Your task to perform on an android device: Search for a small bookcase on Ikea.com Image 0: 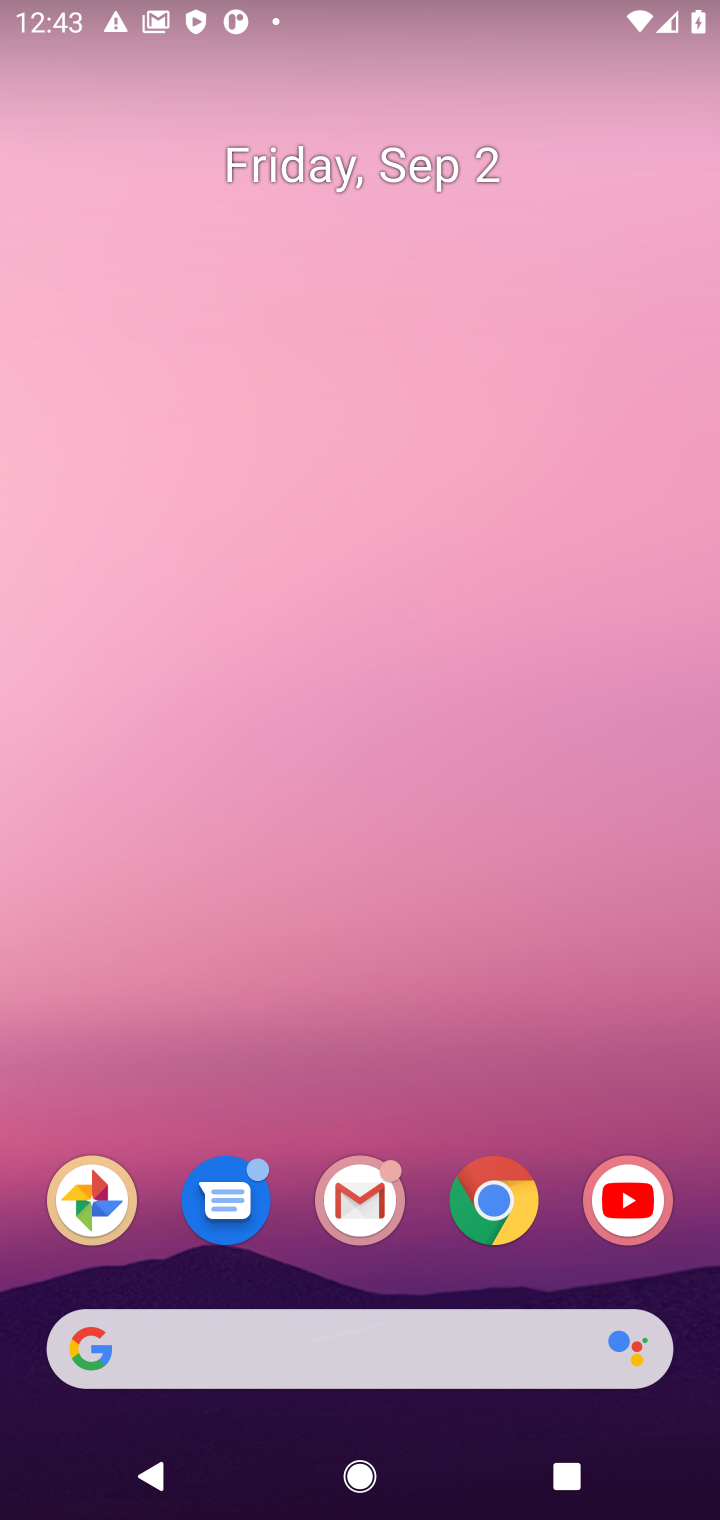
Step 0: click (463, 1194)
Your task to perform on an android device: Search for a small bookcase on Ikea.com Image 1: 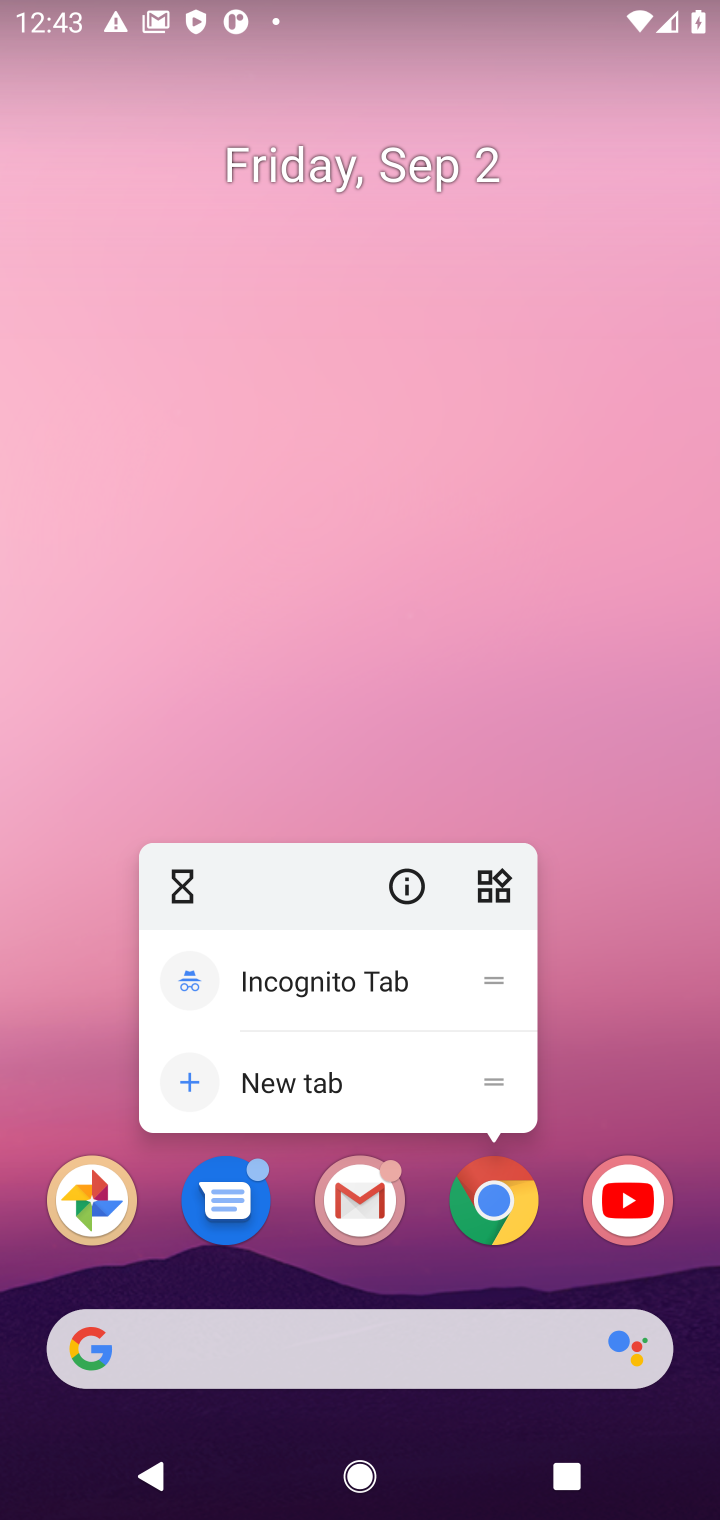
Step 1: click (506, 1191)
Your task to perform on an android device: Search for a small bookcase on Ikea.com Image 2: 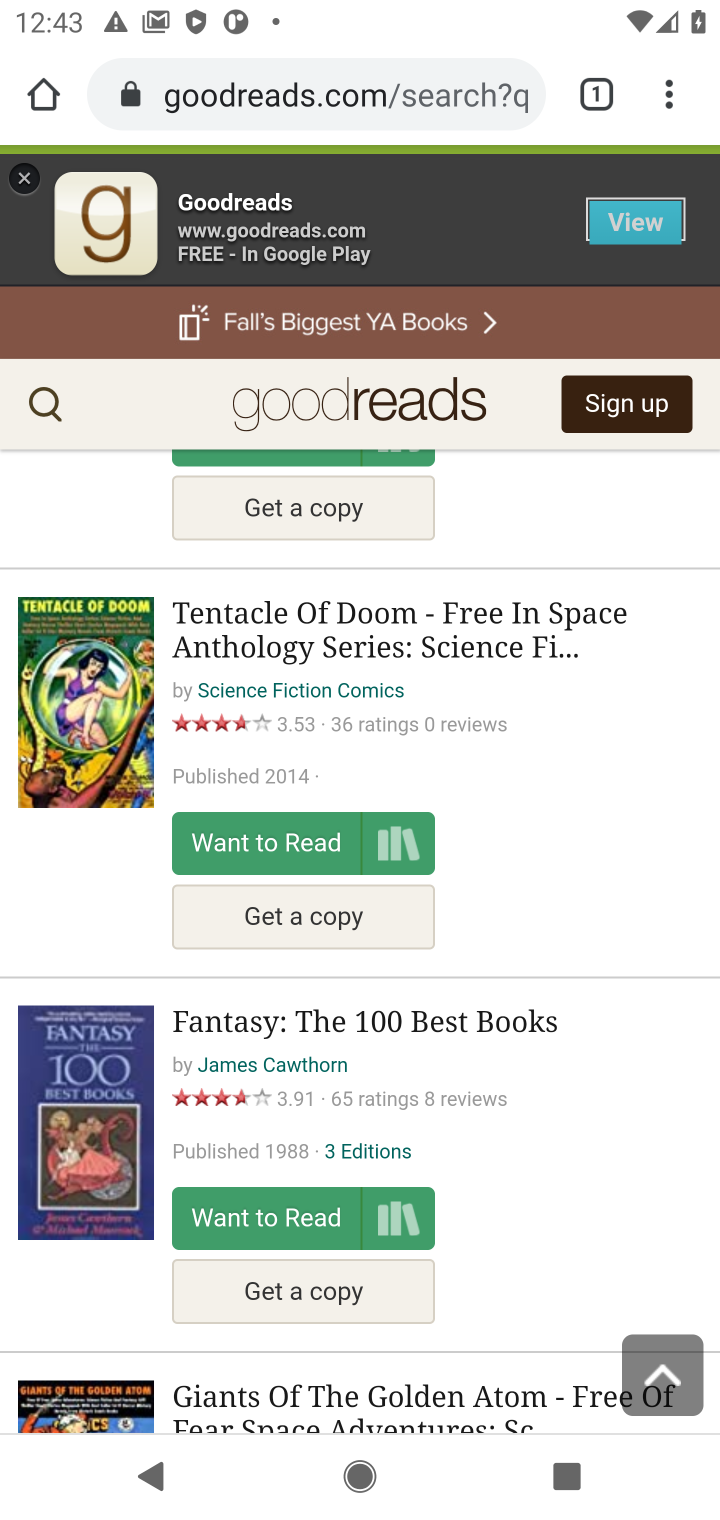
Step 2: click (496, 83)
Your task to perform on an android device: Search for a small bookcase on Ikea.com Image 3: 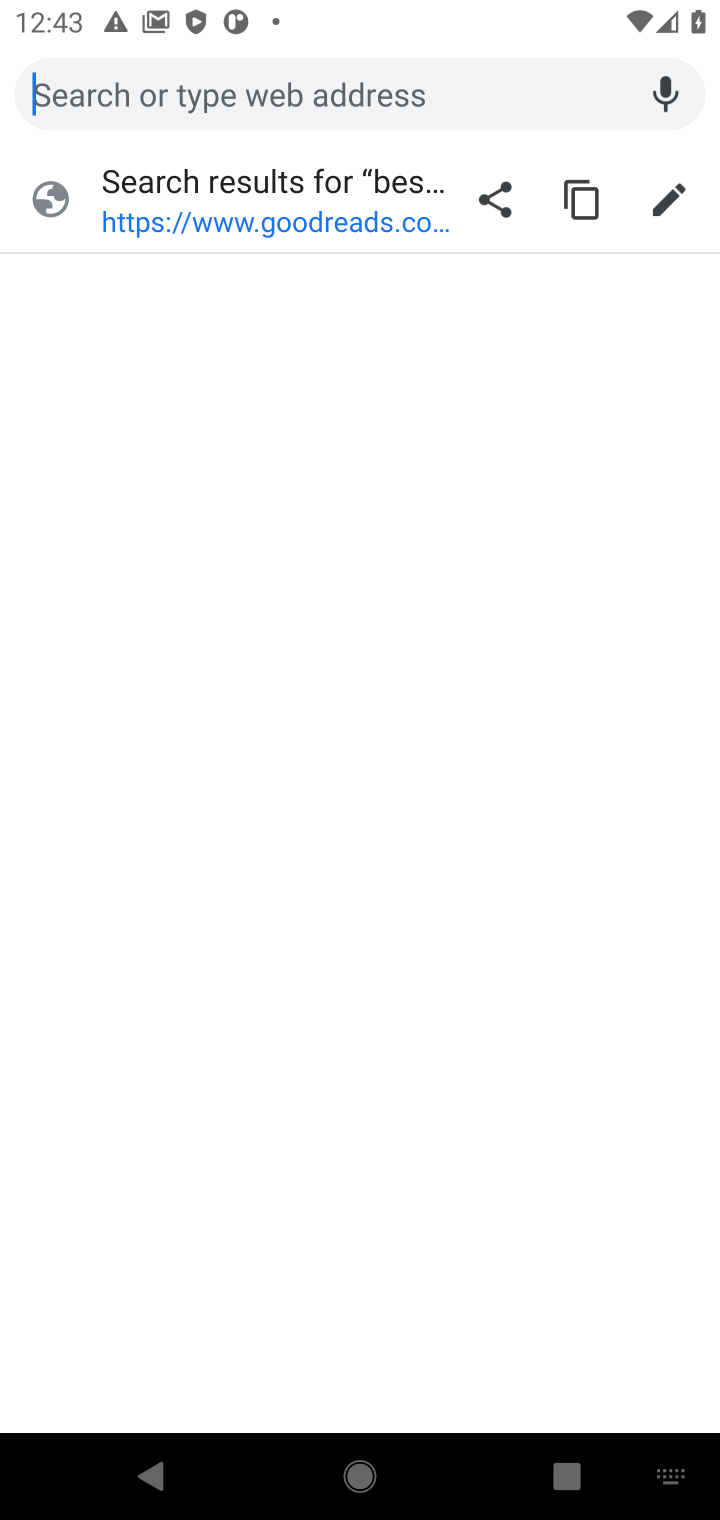
Step 3: type " Ikea.com"
Your task to perform on an android device: Search for a small bookcase on Ikea.com Image 4: 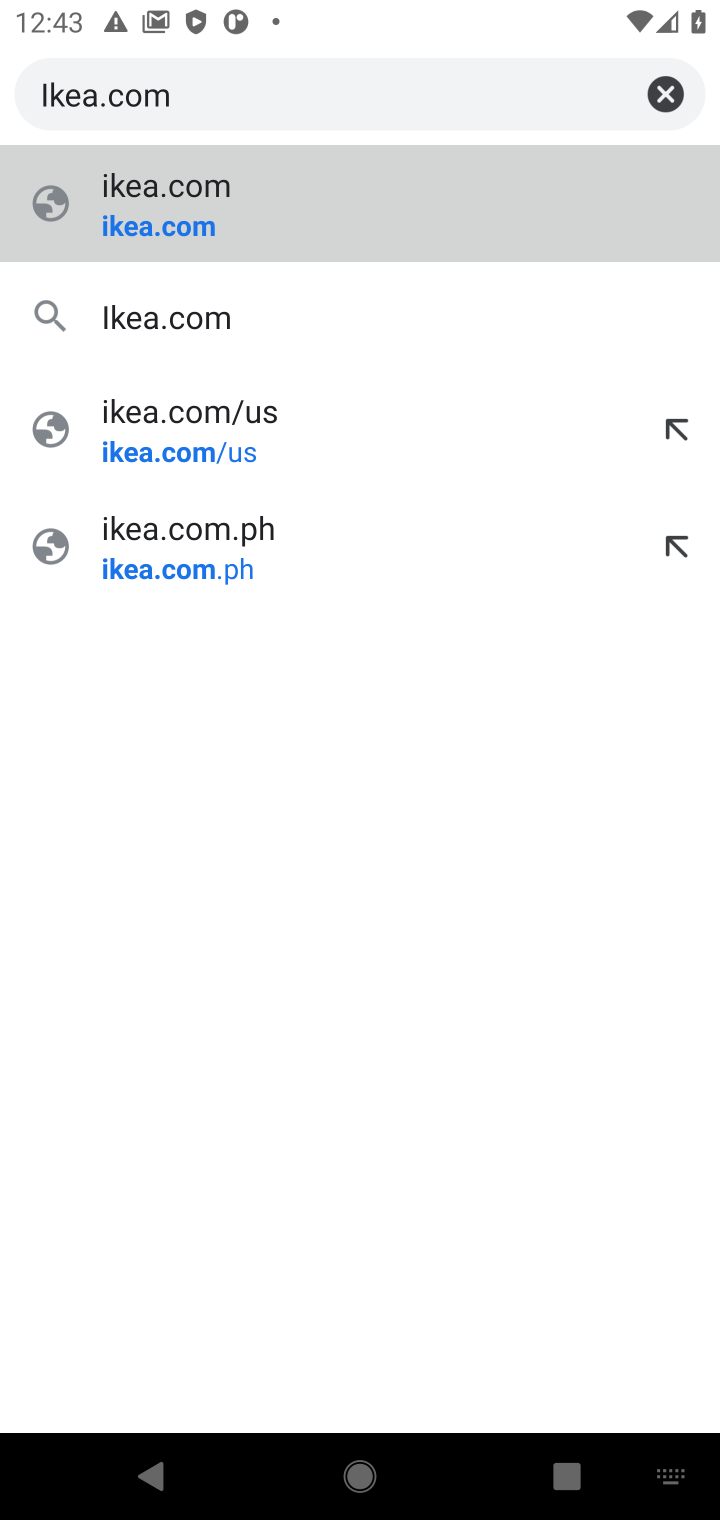
Step 4: press enter
Your task to perform on an android device: Search for a small bookcase on Ikea.com Image 5: 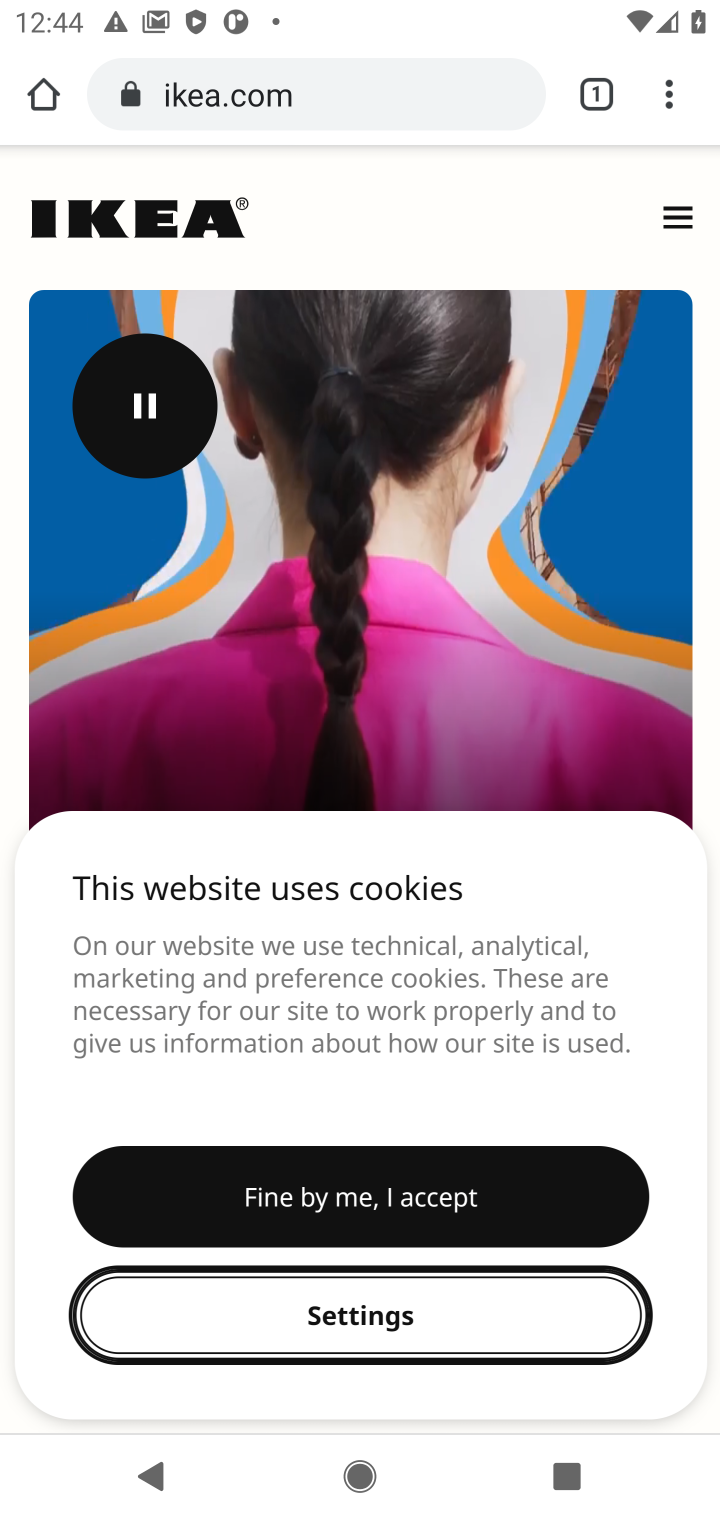
Step 5: click (444, 1219)
Your task to perform on an android device: Search for a small bookcase on Ikea.com Image 6: 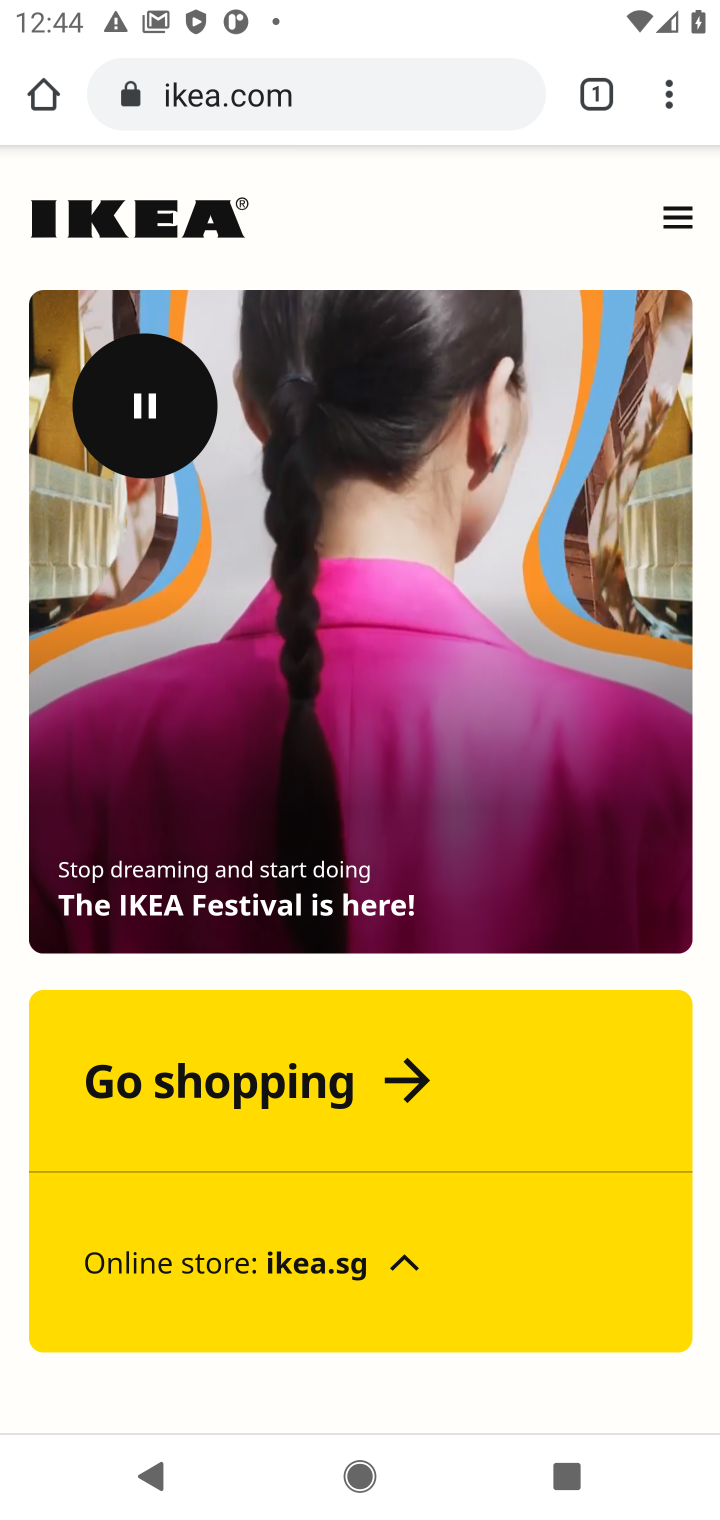
Step 6: drag from (581, 490) to (607, 360)
Your task to perform on an android device: Search for a small bookcase on Ikea.com Image 7: 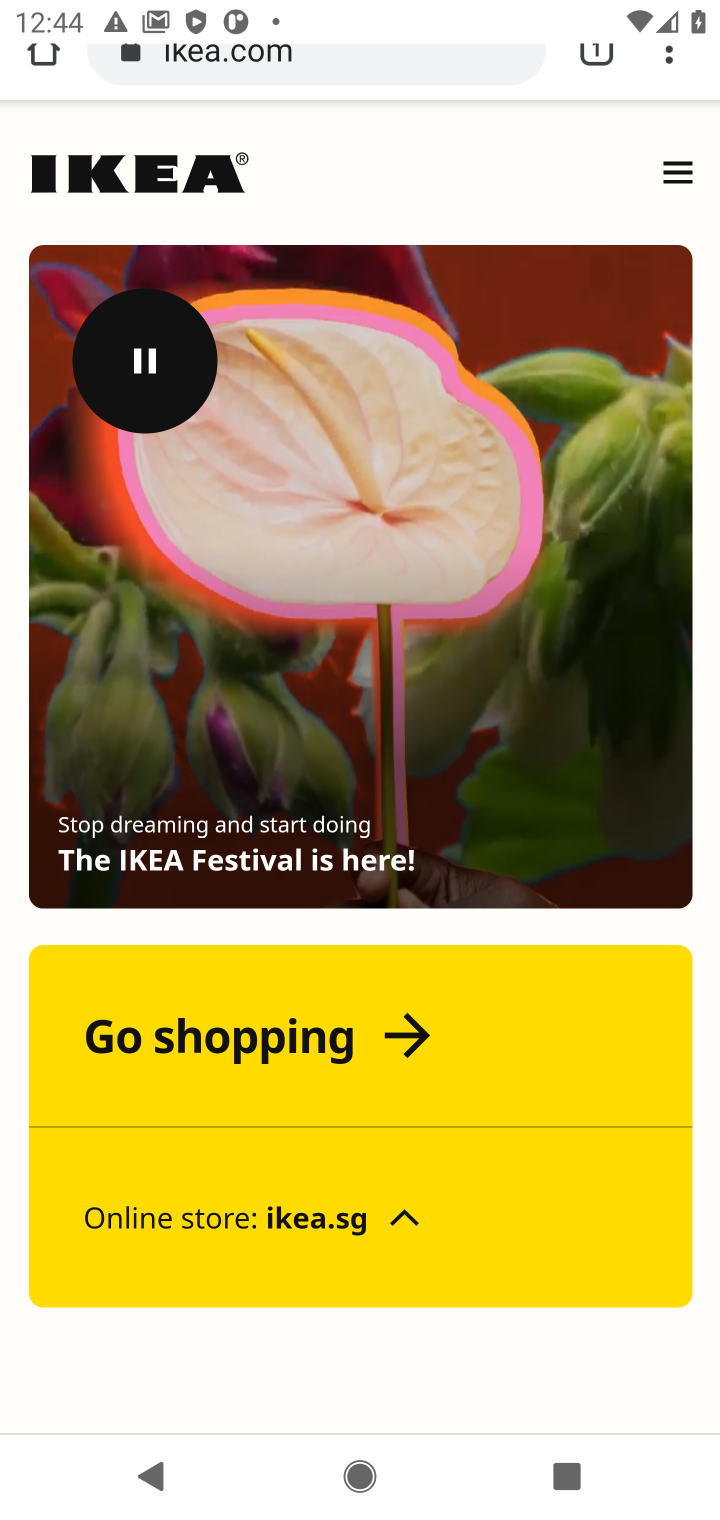
Step 7: drag from (534, 929) to (520, 1014)
Your task to perform on an android device: Search for a small bookcase on Ikea.com Image 8: 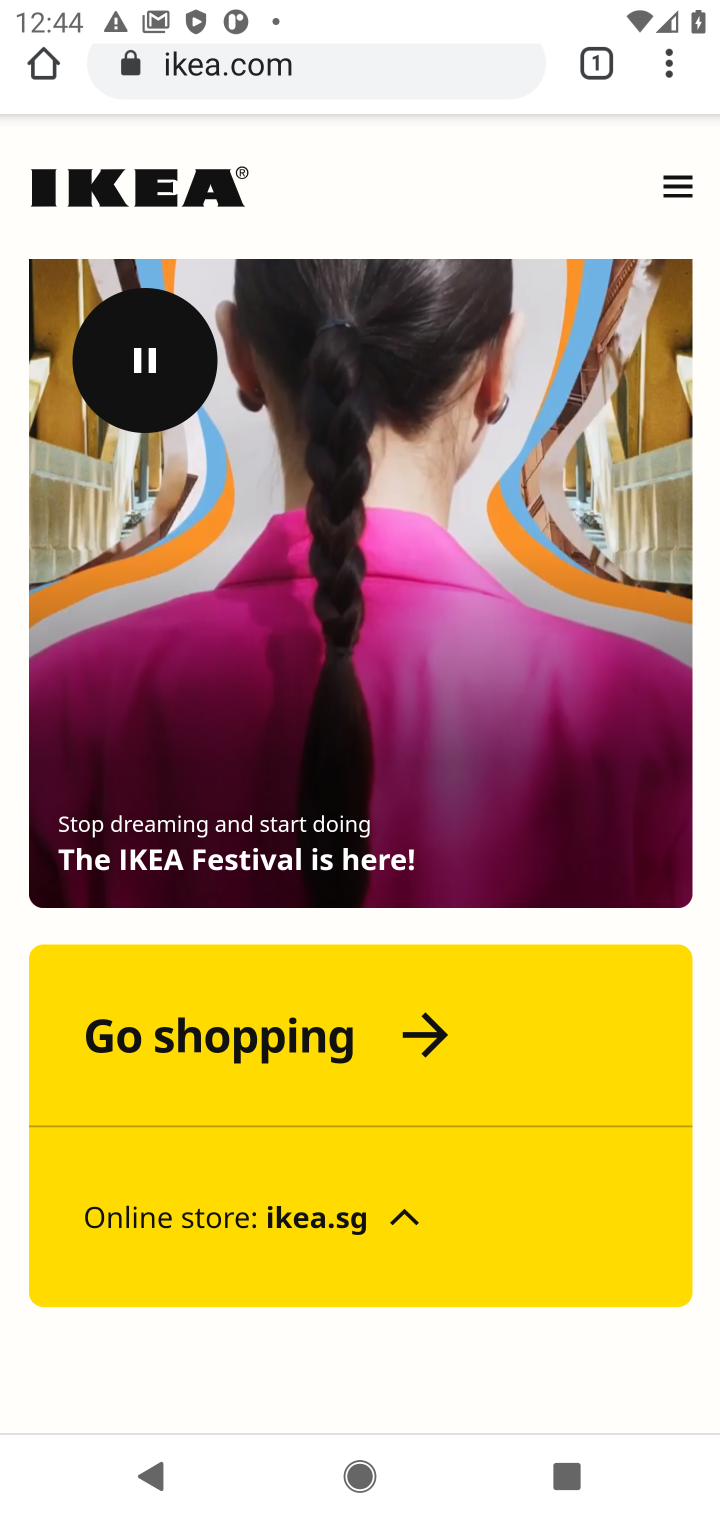
Step 8: click (411, 955)
Your task to perform on an android device: Search for a small bookcase on Ikea.com Image 9: 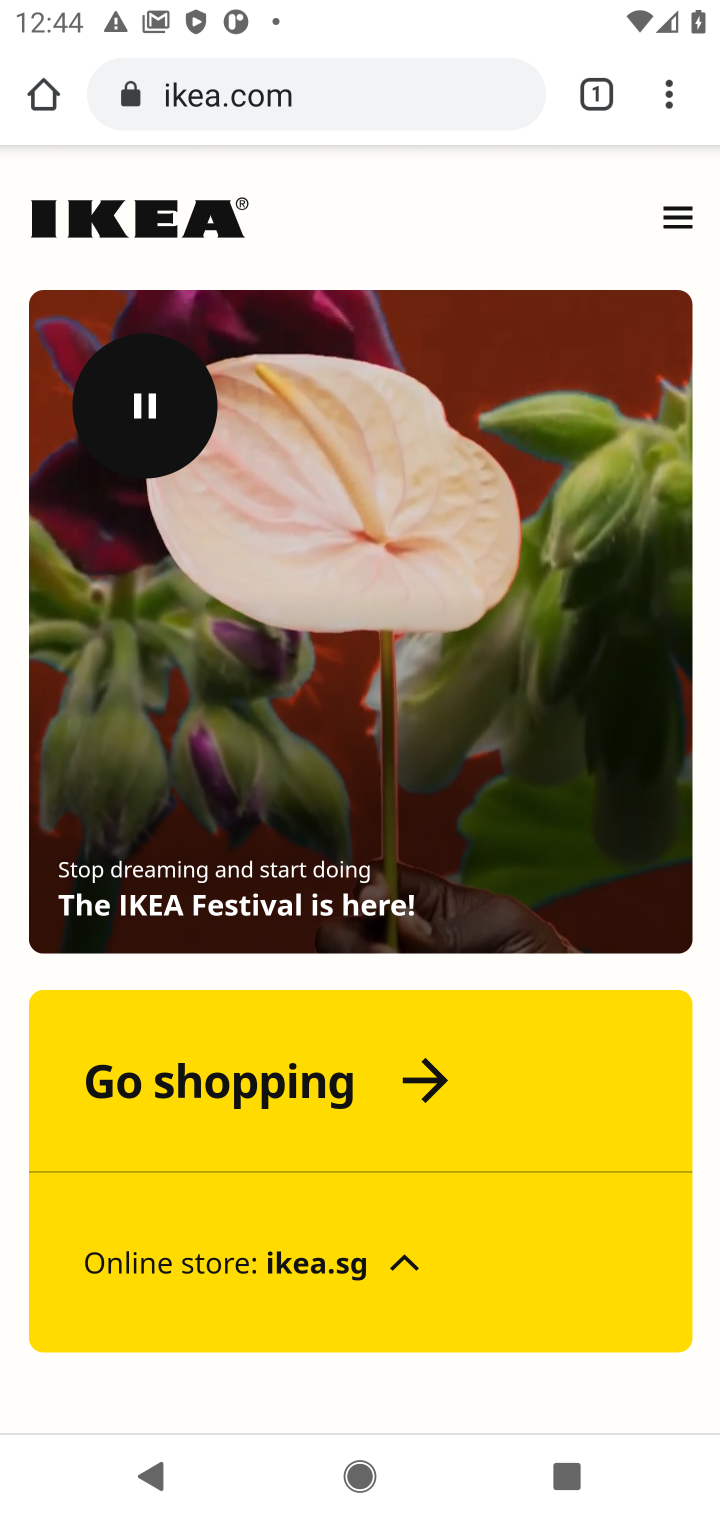
Step 9: click (412, 1084)
Your task to perform on an android device: Search for a small bookcase on Ikea.com Image 10: 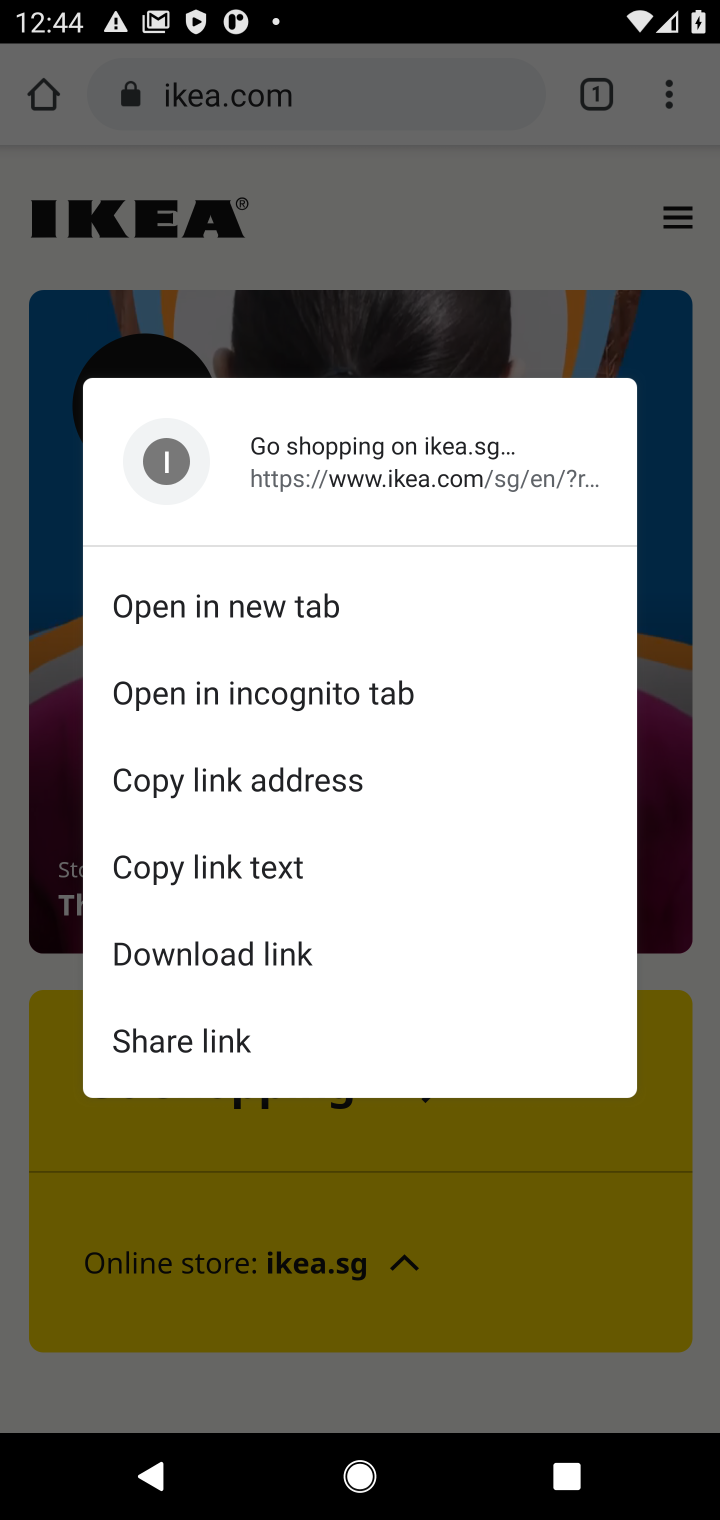
Step 10: click (631, 1065)
Your task to perform on an android device: Search for a small bookcase on Ikea.com Image 11: 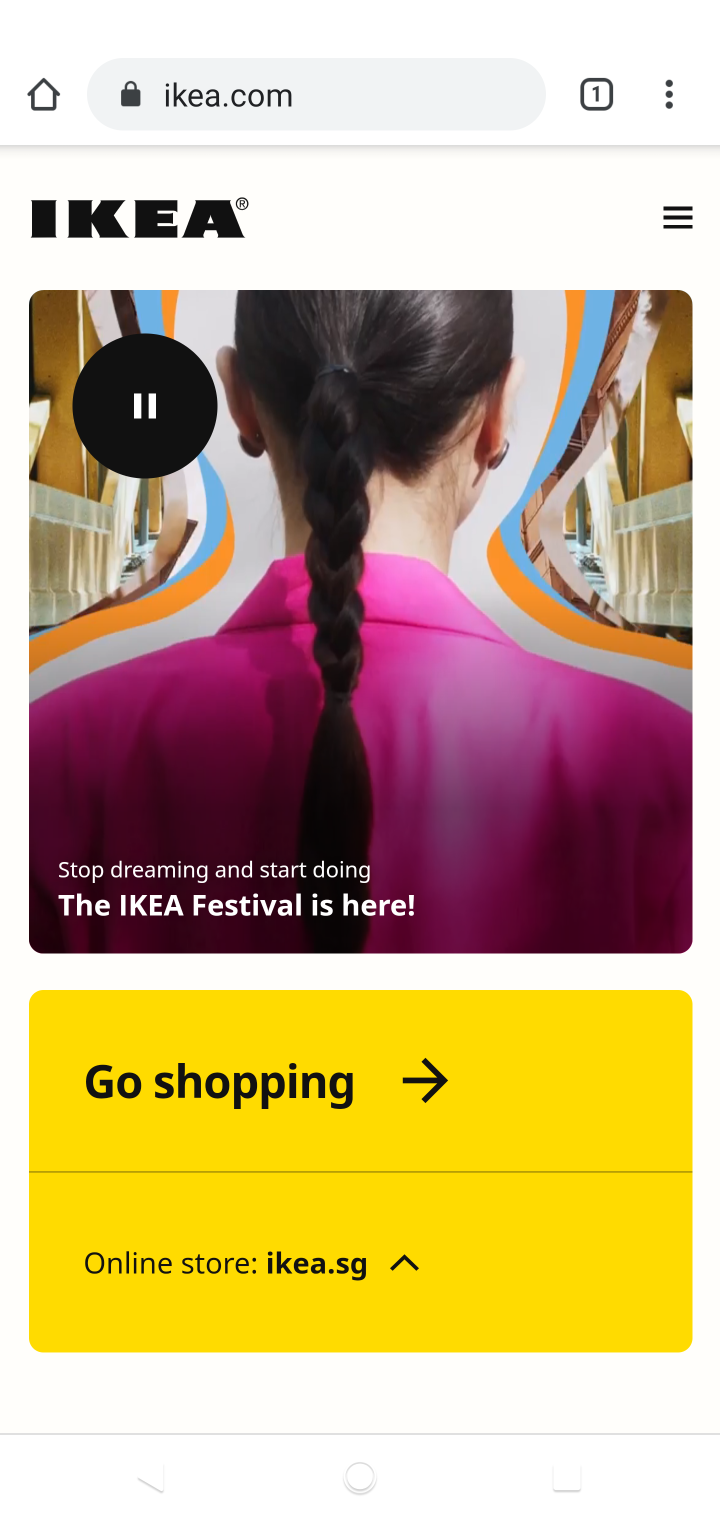
Step 11: click (432, 1080)
Your task to perform on an android device: Search for a small bookcase on Ikea.com Image 12: 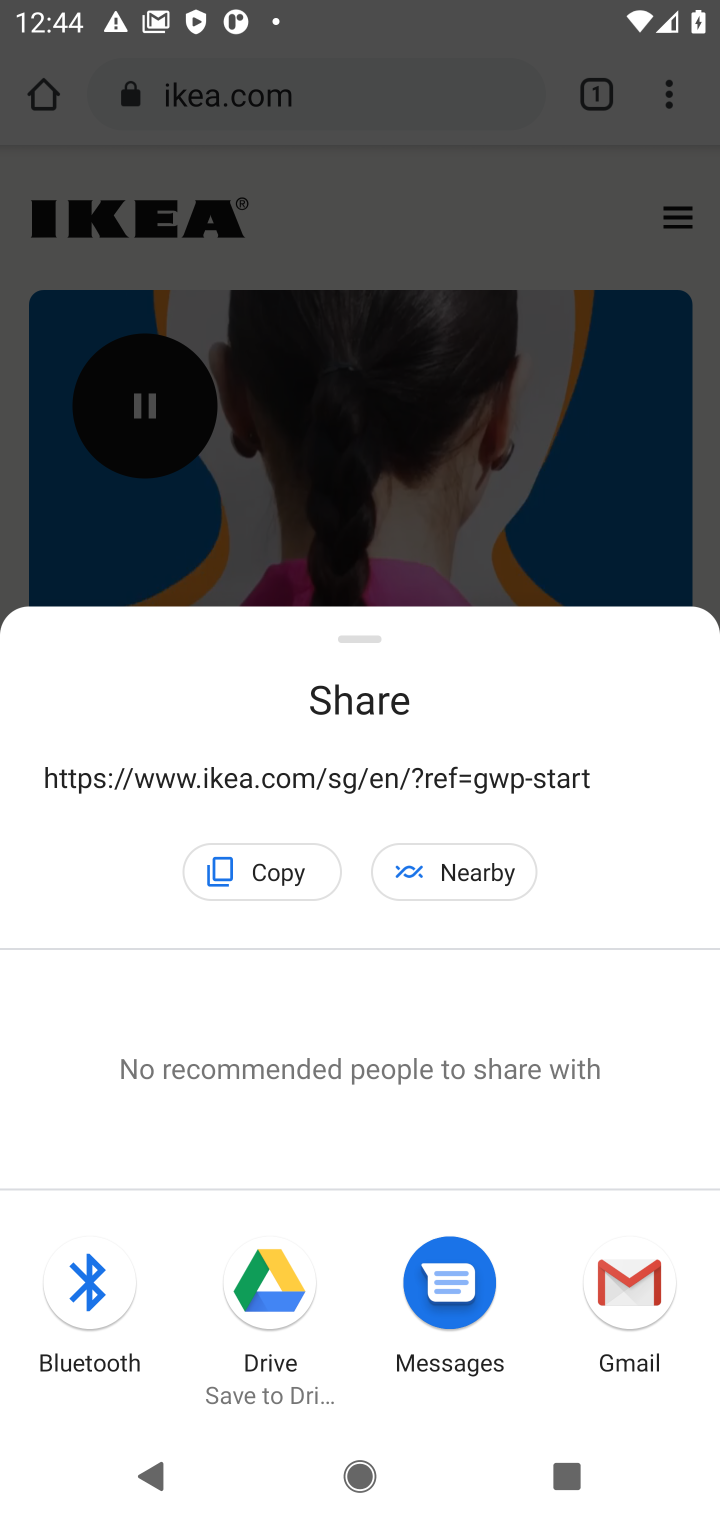
Step 12: press back button
Your task to perform on an android device: Search for a small bookcase on Ikea.com Image 13: 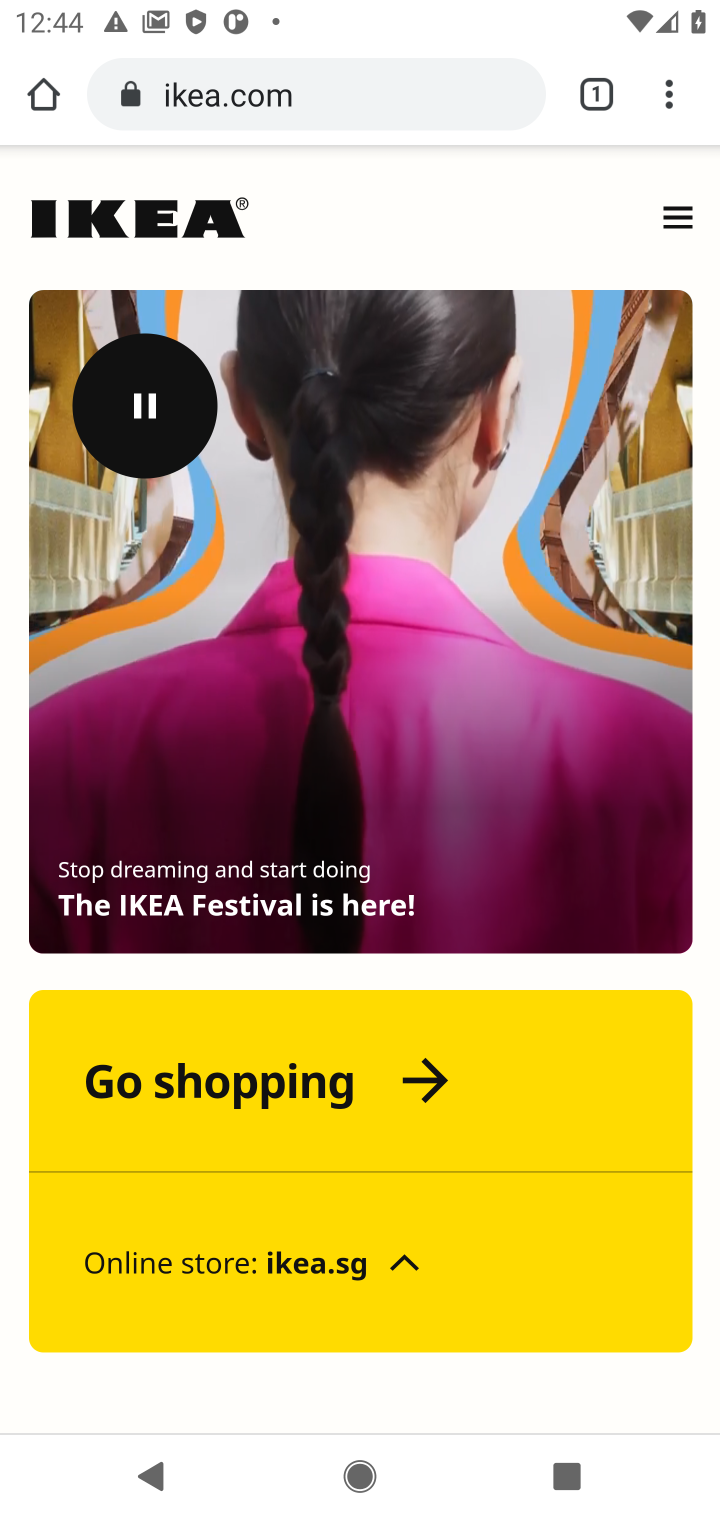
Step 13: click (415, 1068)
Your task to perform on an android device: Search for a small bookcase on Ikea.com Image 14: 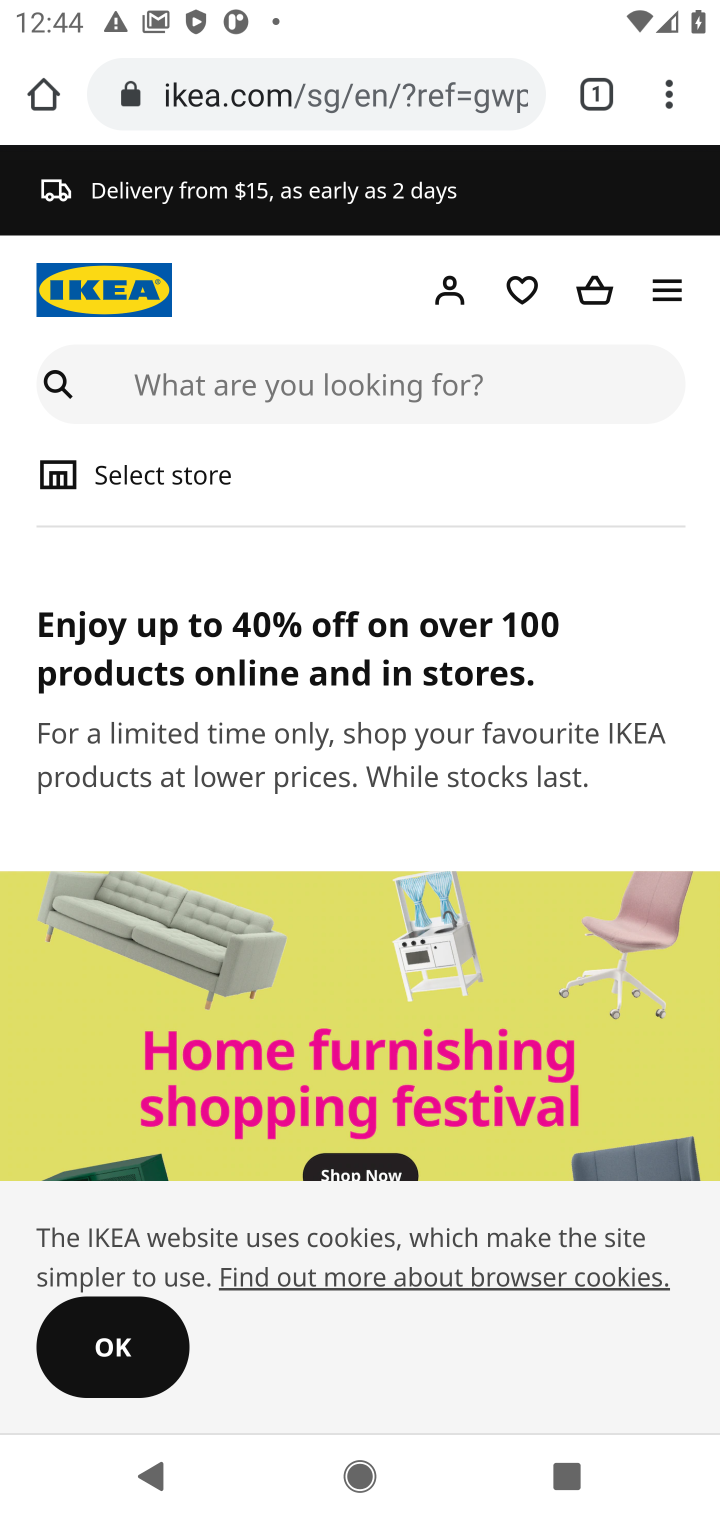
Step 14: click (432, 371)
Your task to perform on an android device: Search for a small bookcase on Ikea.com Image 15: 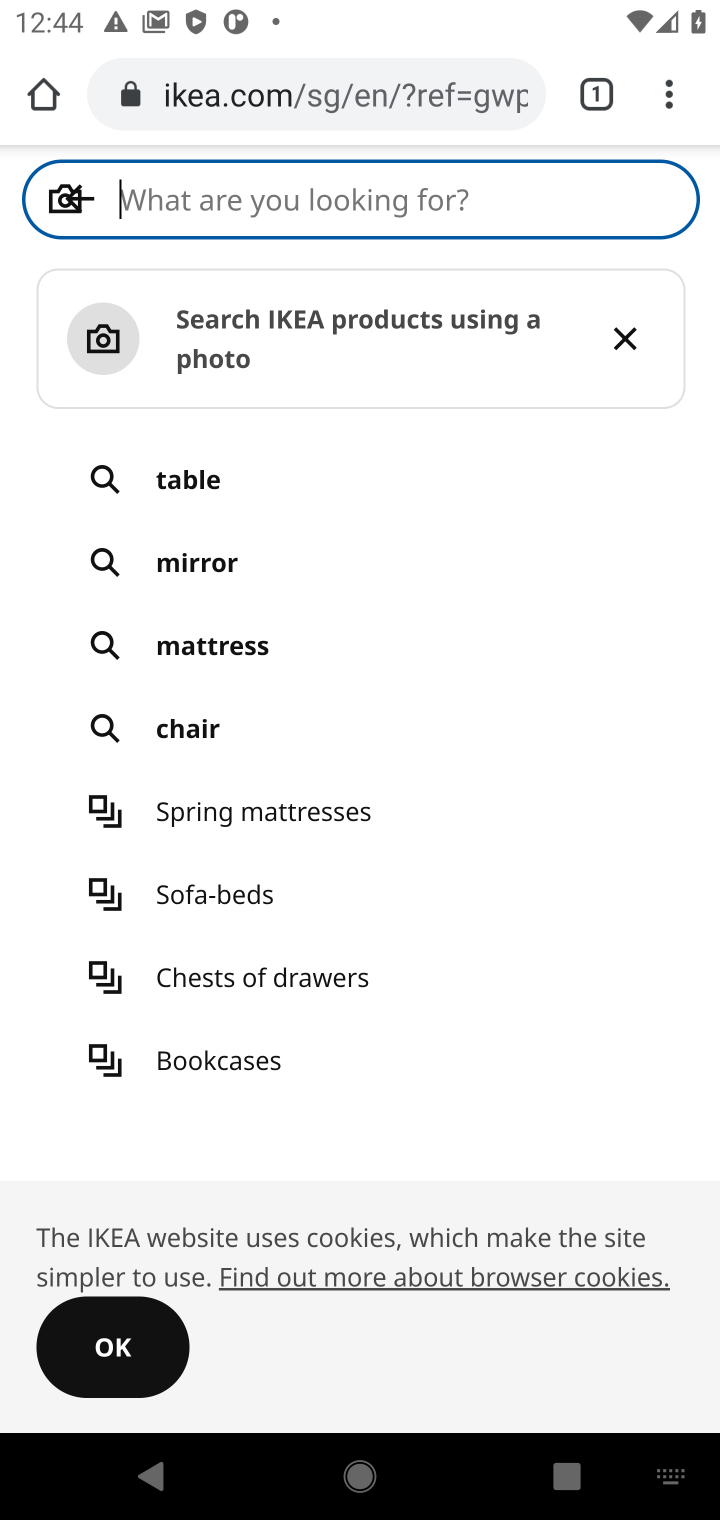
Step 15: type "small bookcase "
Your task to perform on an android device: Search for a small bookcase on Ikea.com Image 16: 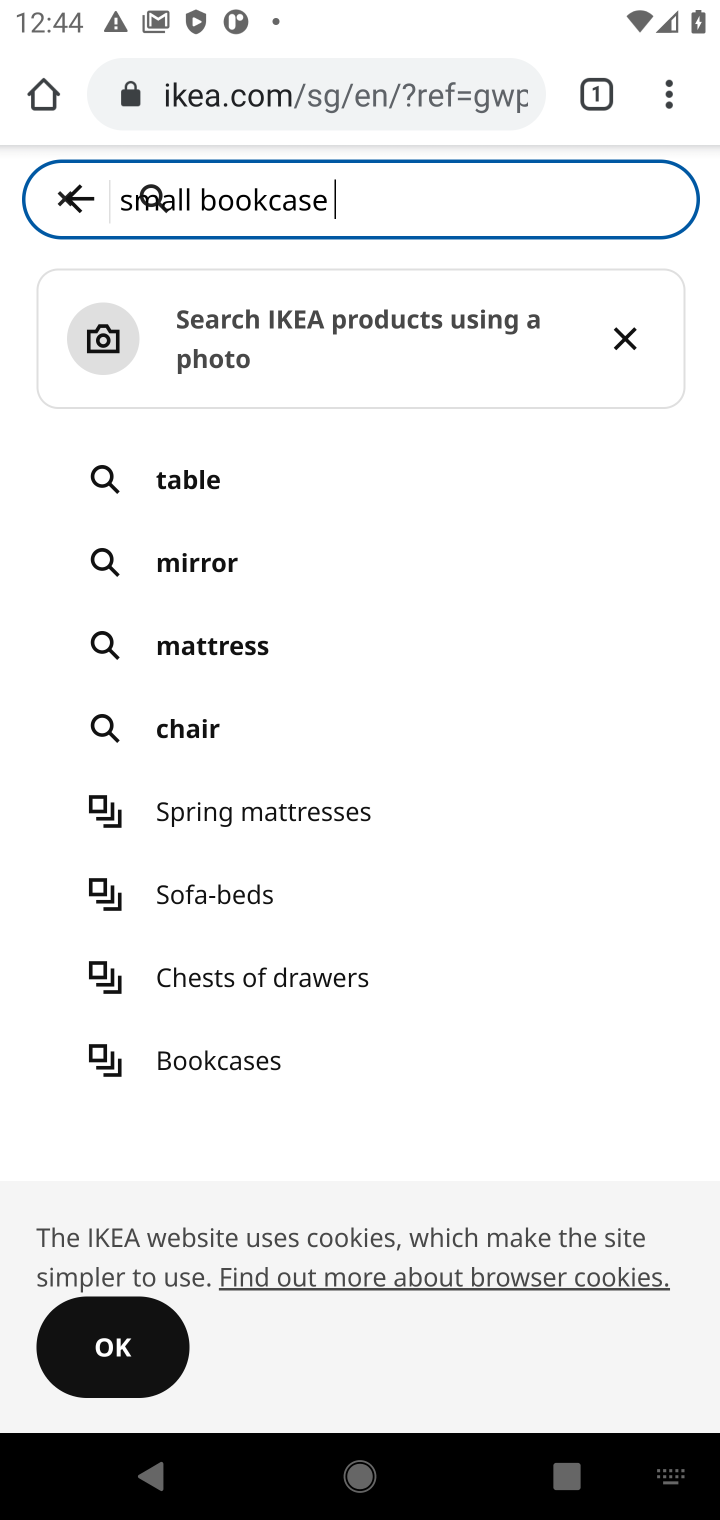
Step 16: press enter
Your task to perform on an android device: Search for a small bookcase on Ikea.com Image 17: 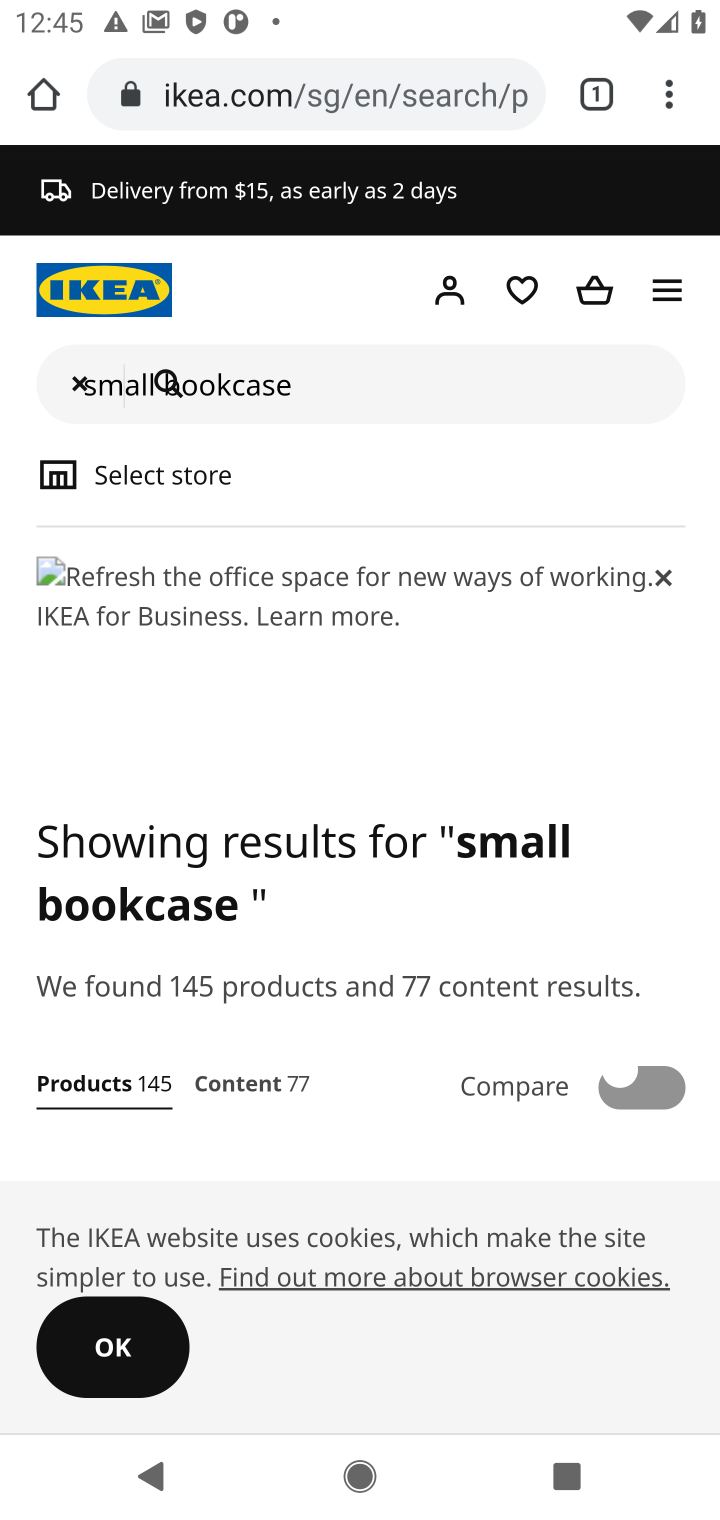
Step 17: task complete